Your task to perform on an android device: turn pop-ups on in chrome Image 0: 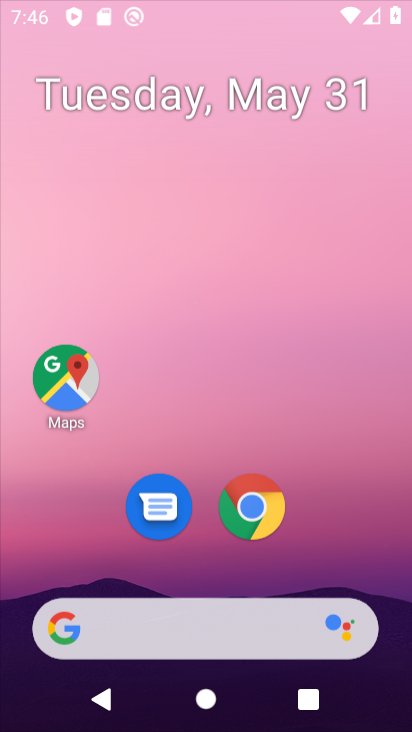
Step 0: click (329, 173)
Your task to perform on an android device: turn pop-ups on in chrome Image 1: 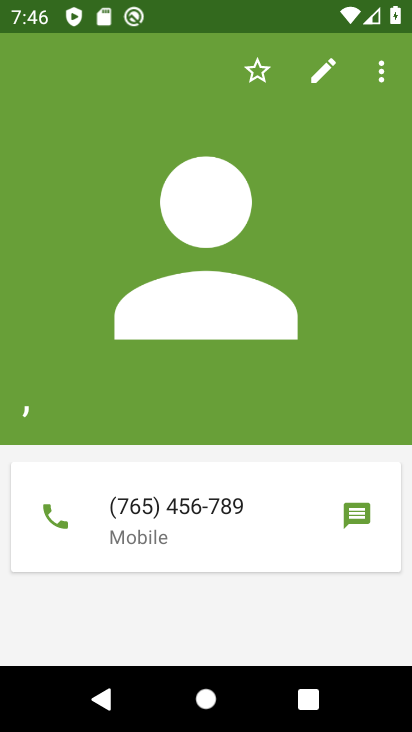
Step 1: press home button
Your task to perform on an android device: turn pop-ups on in chrome Image 2: 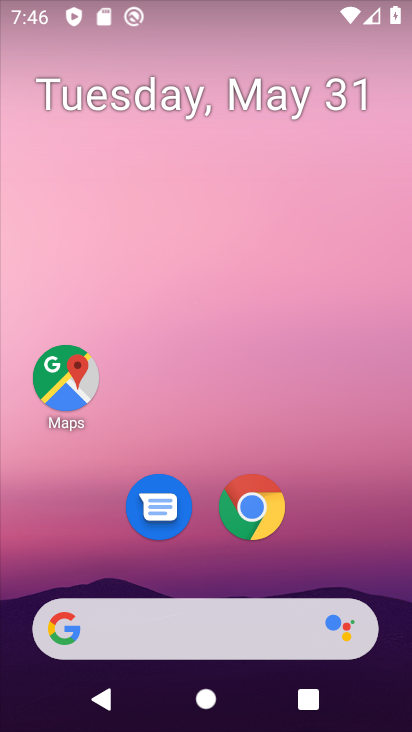
Step 2: click (252, 513)
Your task to perform on an android device: turn pop-ups on in chrome Image 3: 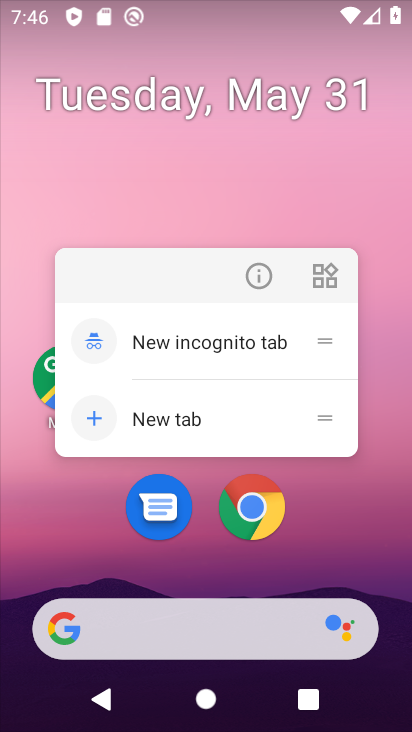
Step 3: click (254, 511)
Your task to perform on an android device: turn pop-ups on in chrome Image 4: 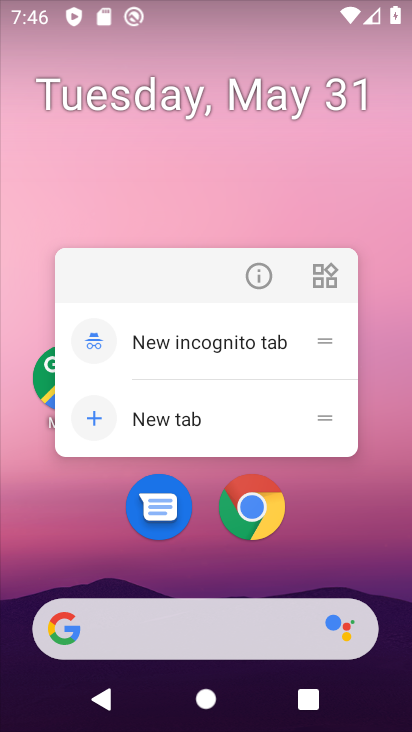
Step 4: click (264, 511)
Your task to perform on an android device: turn pop-ups on in chrome Image 5: 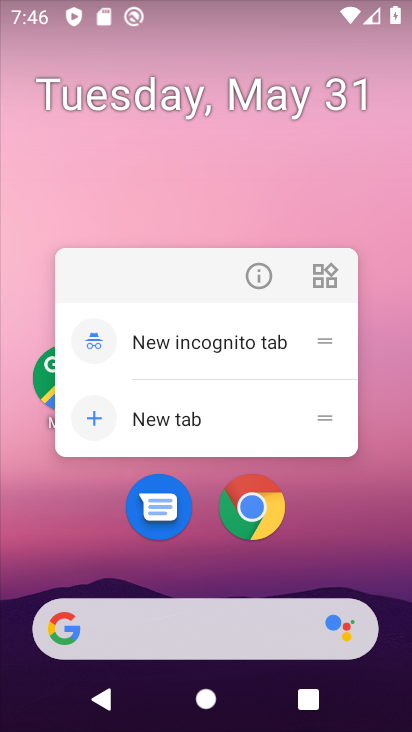
Step 5: click (324, 518)
Your task to perform on an android device: turn pop-ups on in chrome Image 6: 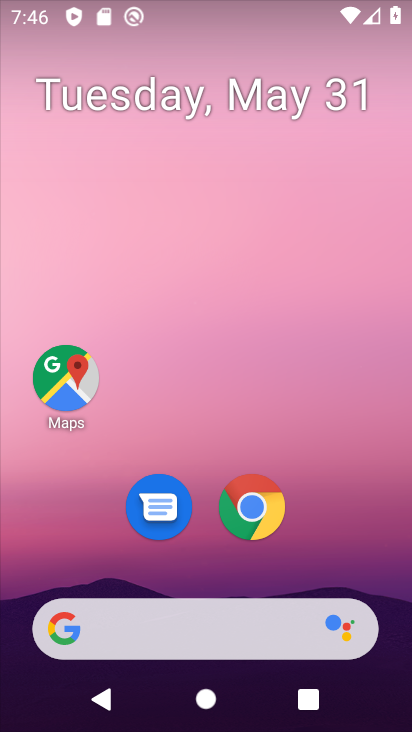
Step 6: drag from (363, 556) to (344, 198)
Your task to perform on an android device: turn pop-ups on in chrome Image 7: 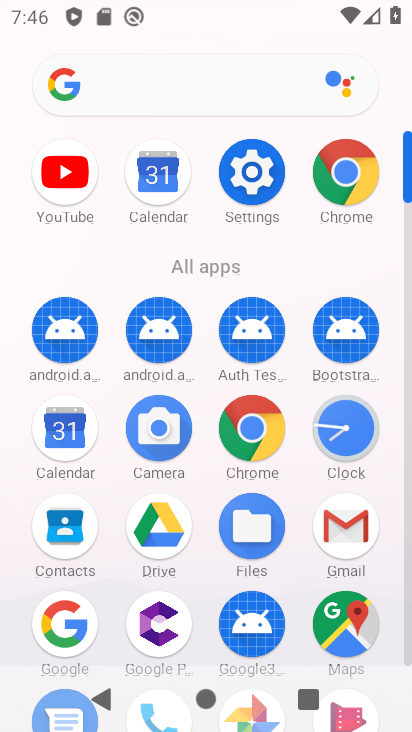
Step 7: click (252, 433)
Your task to perform on an android device: turn pop-ups on in chrome Image 8: 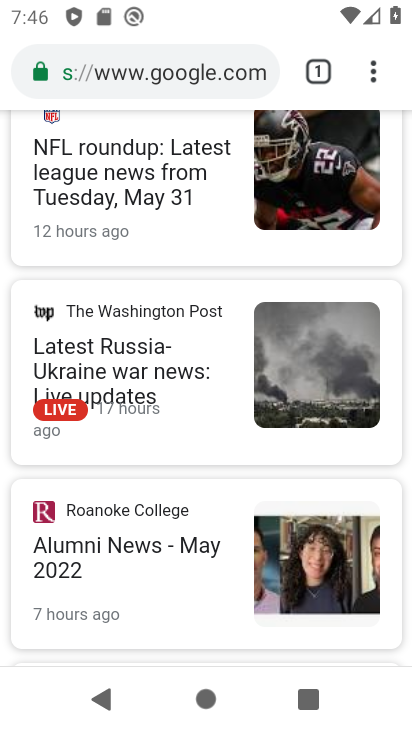
Step 8: drag from (370, 72) to (135, 480)
Your task to perform on an android device: turn pop-ups on in chrome Image 9: 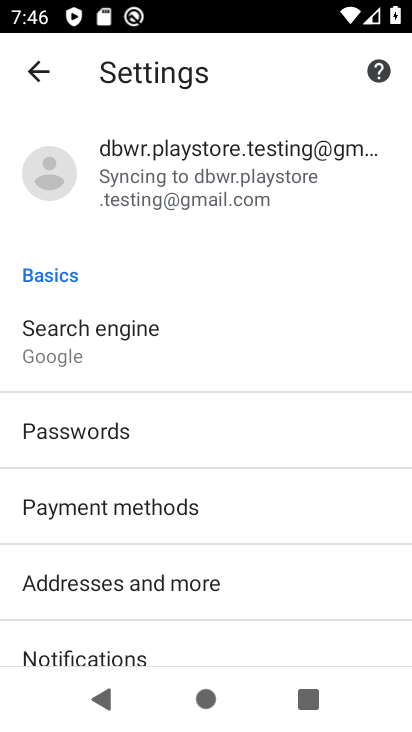
Step 9: drag from (245, 374) to (309, 99)
Your task to perform on an android device: turn pop-ups on in chrome Image 10: 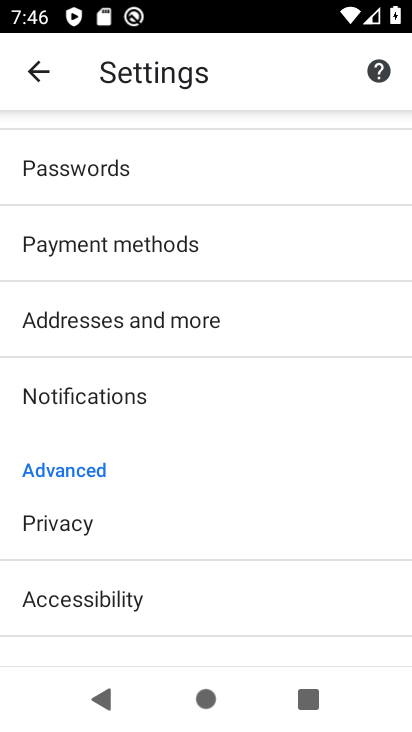
Step 10: drag from (182, 465) to (266, 189)
Your task to perform on an android device: turn pop-ups on in chrome Image 11: 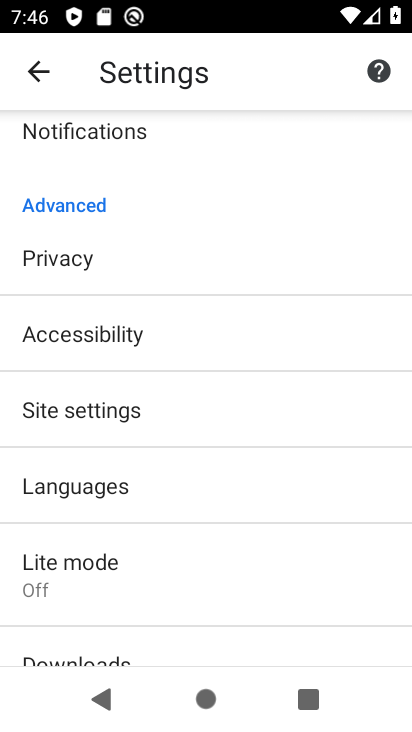
Step 11: drag from (180, 426) to (193, 321)
Your task to perform on an android device: turn pop-ups on in chrome Image 12: 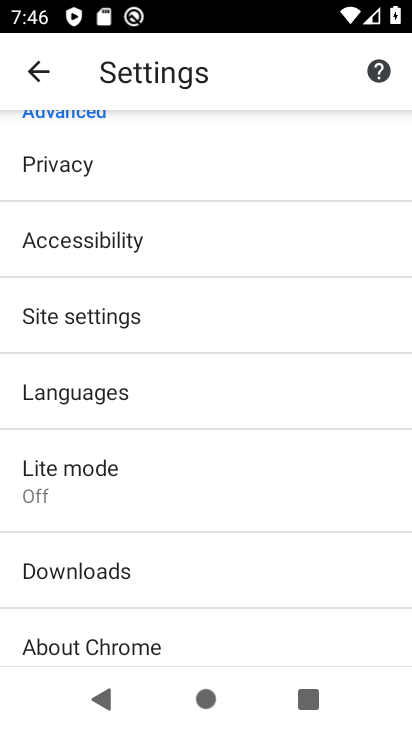
Step 12: click (130, 307)
Your task to perform on an android device: turn pop-ups on in chrome Image 13: 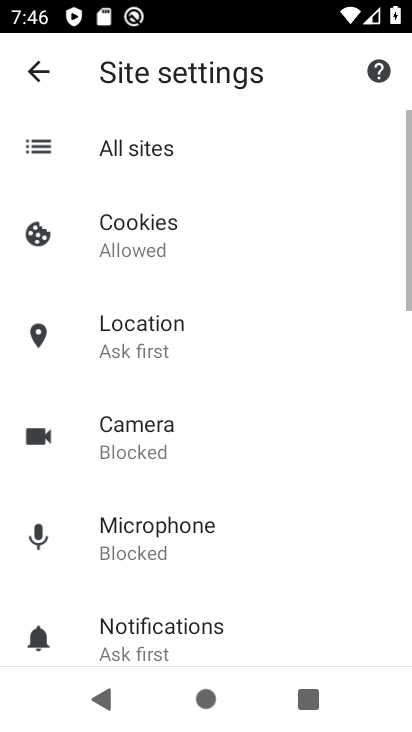
Step 13: drag from (263, 564) to (240, 272)
Your task to perform on an android device: turn pop-ups on in chrome Image 14: 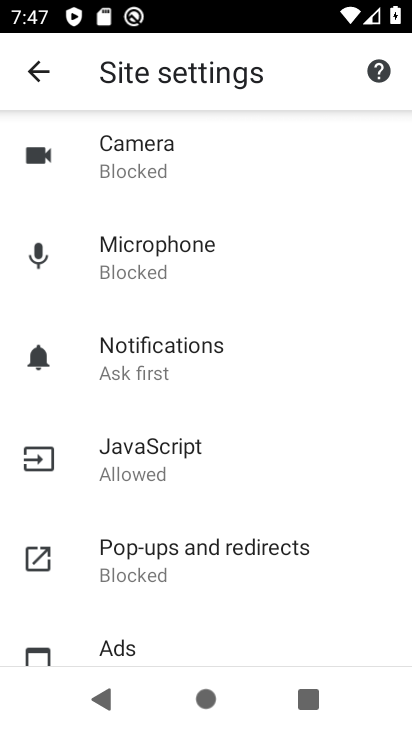
Step 14: drag from (238, 488) to (259, 316)
Your task to perform on an android device: turn pop-ups on in chrome Image 15: 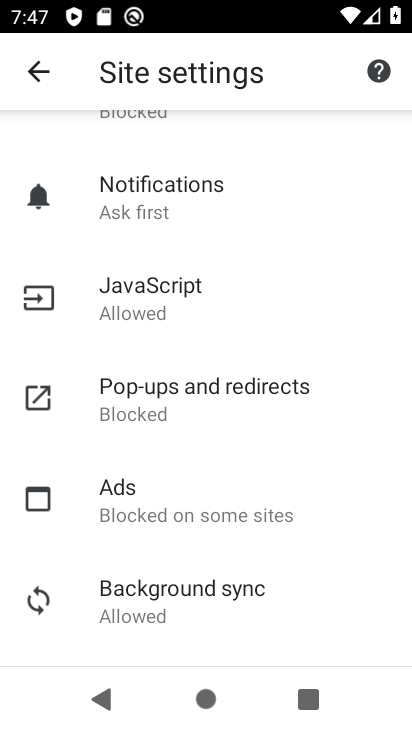
Step 15: click (157, 392)
Your task to perform on an android device: turn pop-ups on in chrome Image 16: 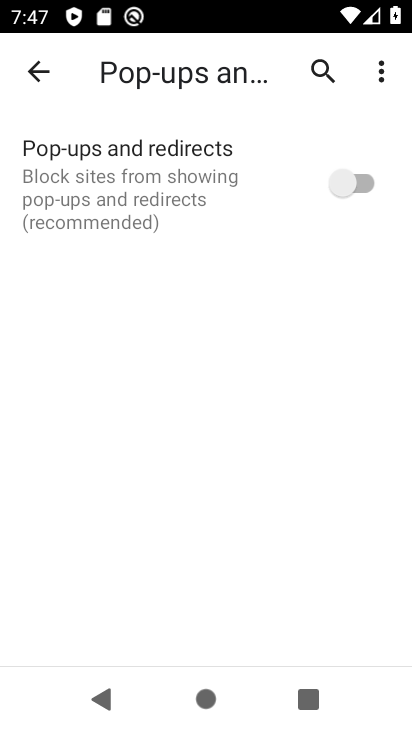
Step 16: click (346, 169)
Your task to perform on an android device: turn pop-ups on in chrome Image 17: 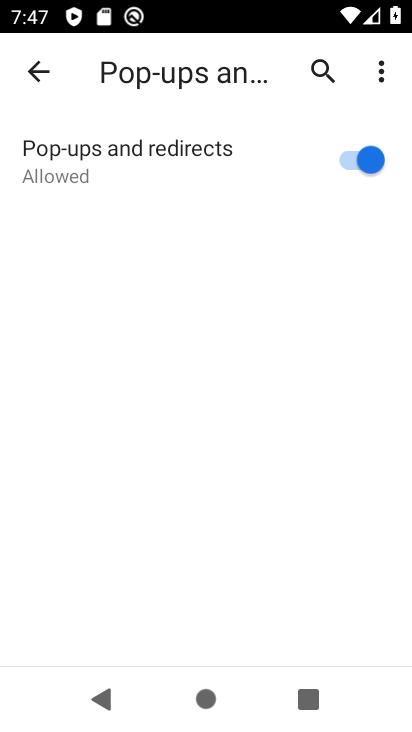
Step 17: task complete